Your task to perform on an android device: Open calendar and show me the third week of next month Image 0: 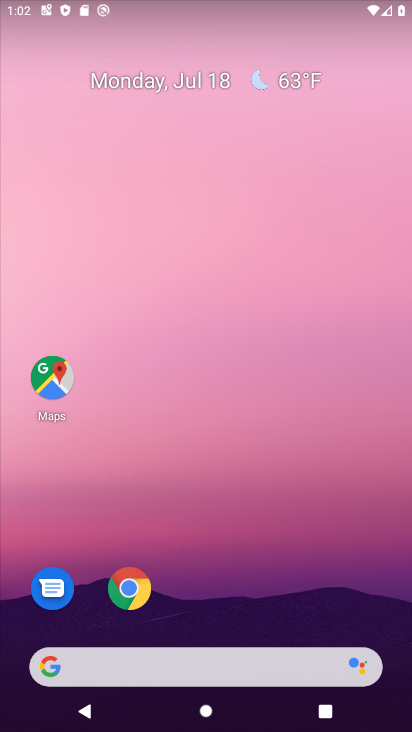
Step 0: click (339, 505)
Your task to perform on an android device: Open calendar and show me the third week of next month Image 1: 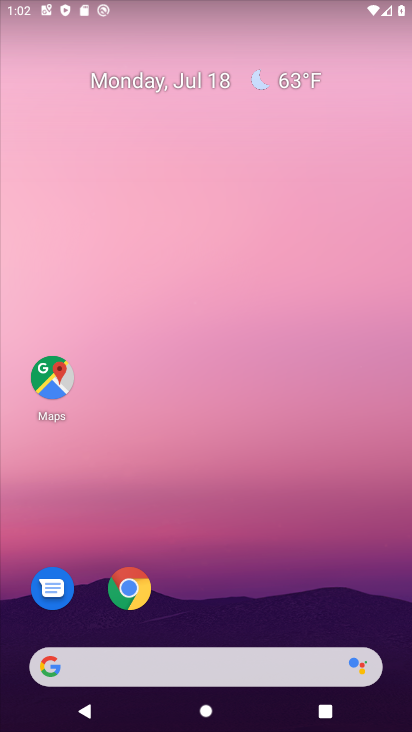
Step 1: drag from (249, 597) to (195, 215)
Your task to perform on an android device: Open calendar and show me the third week of next month Image 2: 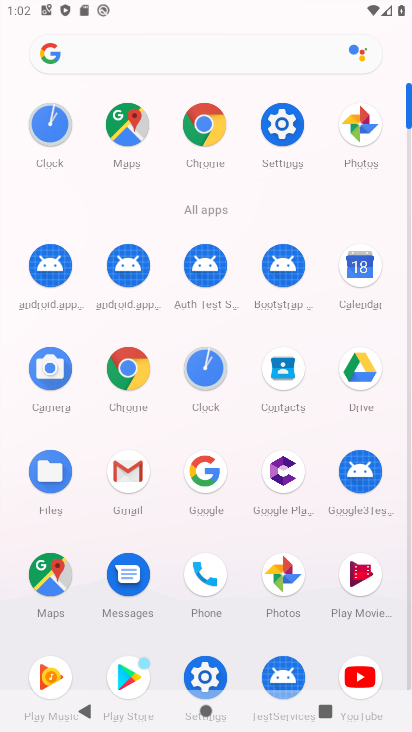
Step 2: click (358, 264)
Your task to perform on an android device: Open calendar and show me the third week of next month Image 3: 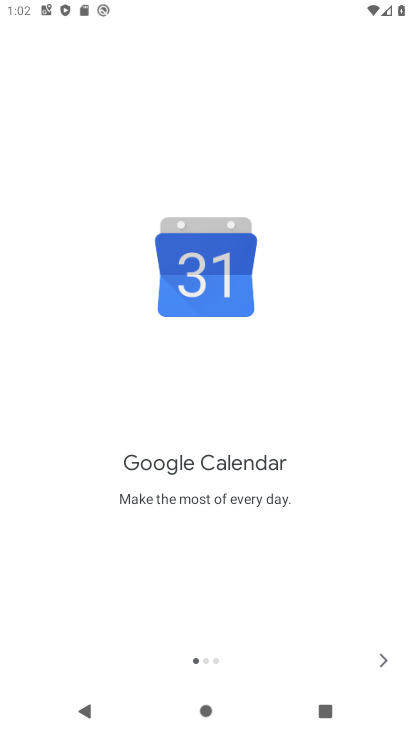
Step 3: click (379, 660)
Your task to perform on an android device: Open calendar and show me the third week of next month Image 4: 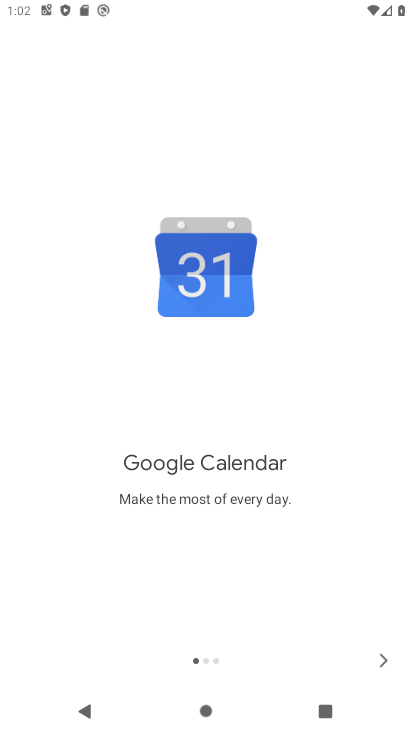
Step 4: click (379, 660)
Your task to perform on an android device: Open calendar and show me the third week of next month Image 5: 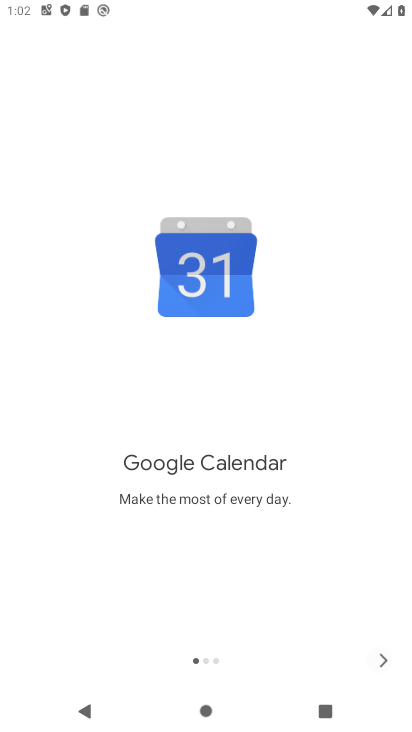
Step 5: click (379, 660)
Your task to perform on an android device: Open calendar and show me the third week of next month Image 6: 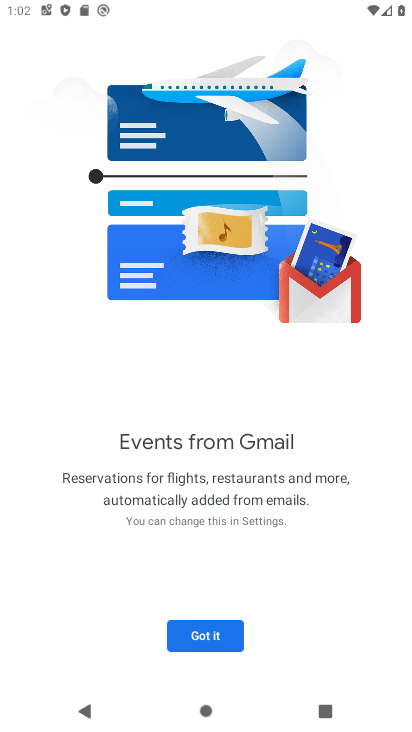
Step 6: click (189, 628)
Your task to perform on an android device: Open calendar and show me the third week of next month Image 7: 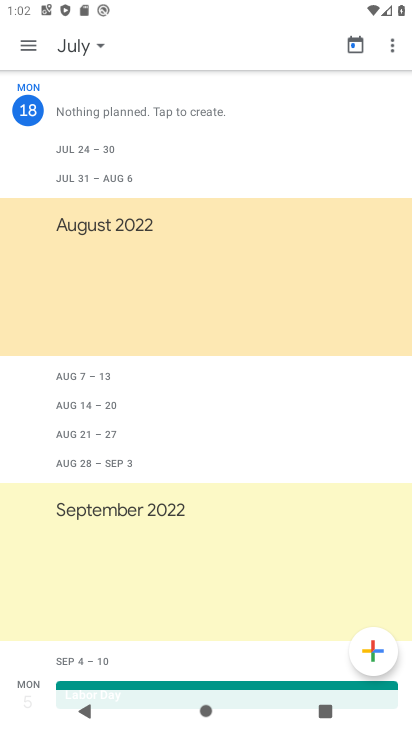
Step 7: click (31, 55)
Your task to perform on an android device: Open calendar and show me the third week of next month Image 8: 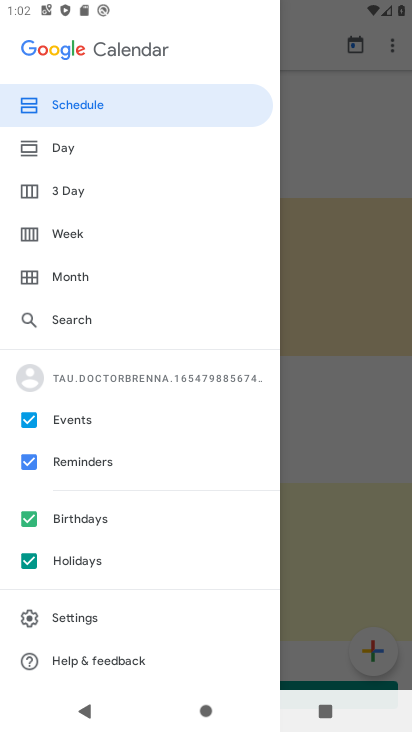
Step 8: click (61, 228)
Your task to perform on an android device: Open calendar and show me the third week of next month Image 9: 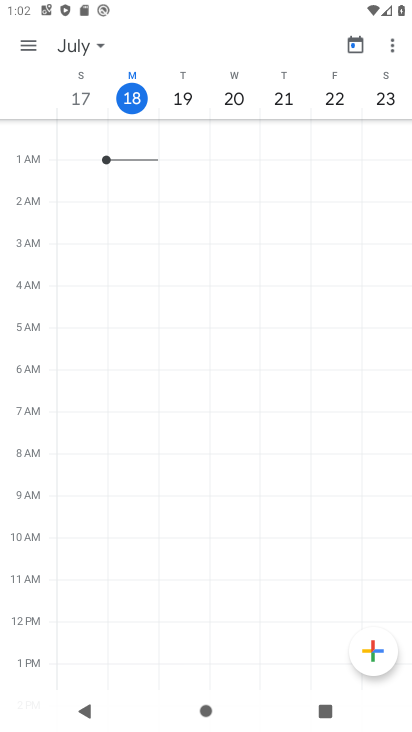
Step 9: click (87, 36)
Your task to perform on an android device: Open calendar and show me the third week of next month Image 10: 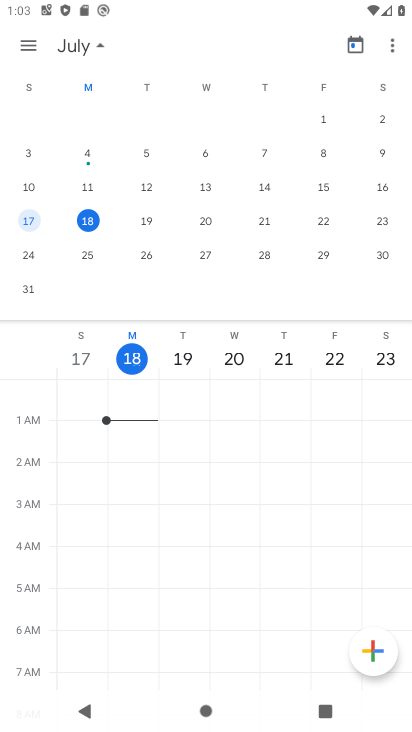
Step 10: drag from (353, 185) to (0, 116)
Your task to perform on an android device: Open calendar and show me the third week of next month Image 11: 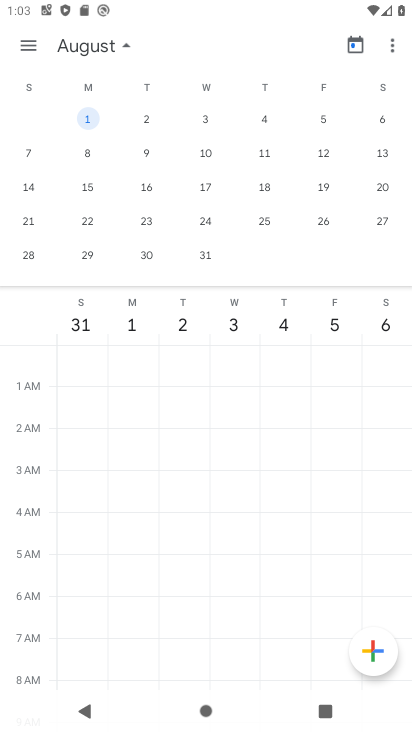
Step 11: click (84, 185)
Your task to perform on an android device: Open calendar and show me the third week of next month Image 12: 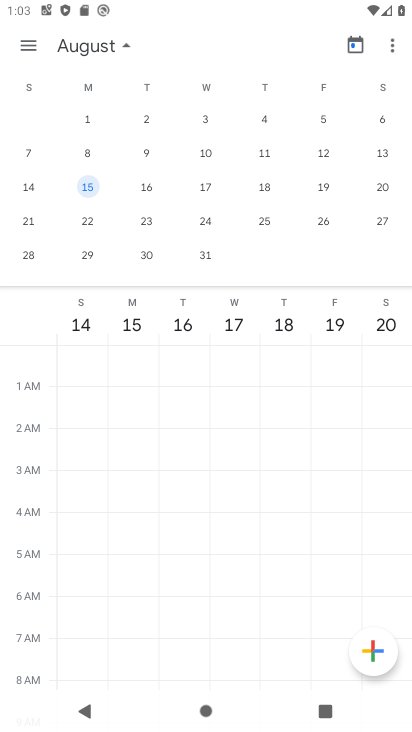
Step 12: task complete